Your task to perform on an android device: Open location settings Image 0: 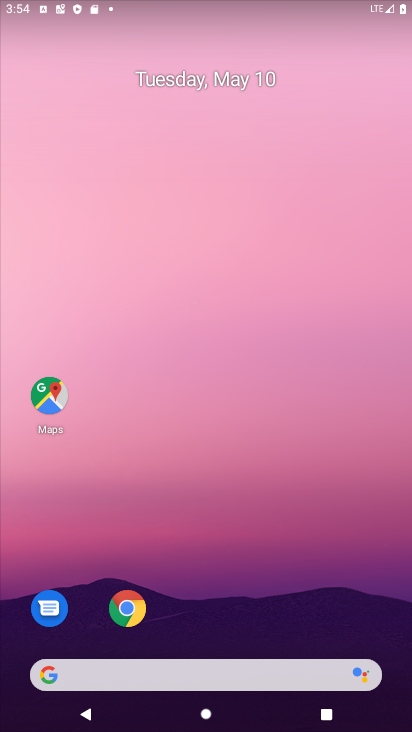
Step 0: drag from (374, 629) to (289, 102)
Your task to perform on an android device: Open location settings Image 1: 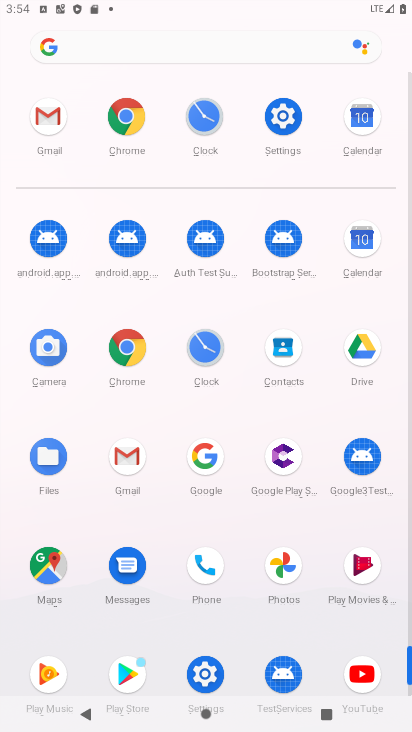
Step 1: click (200, 675)
Your task to perform on an android device: Open location settings Image 2: 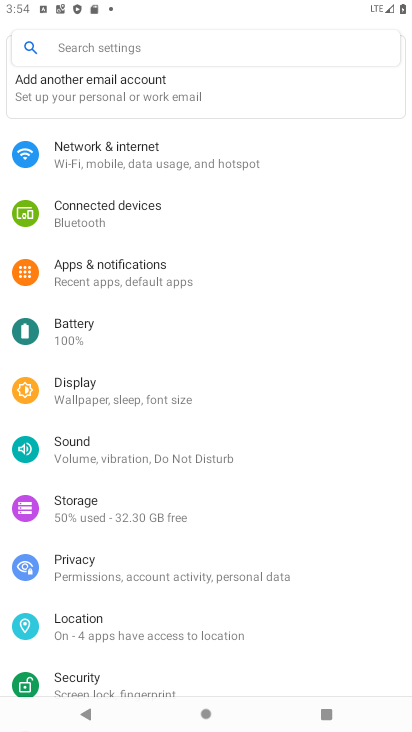
Step 2: click (98, 626)
Your task to perform on an android device: Open location settings Image 3: 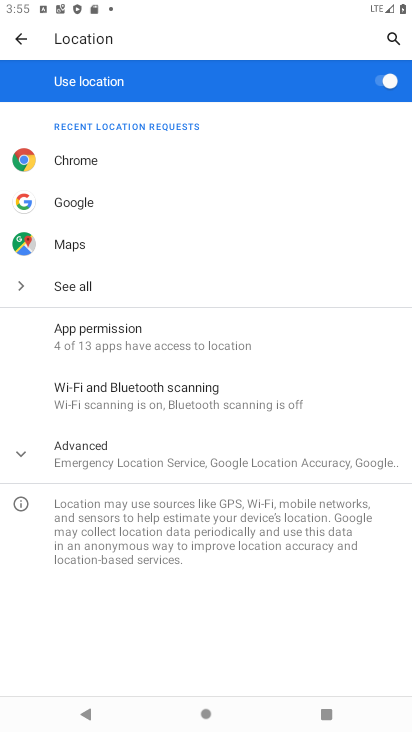
Step 3: click (21, 458)
Your task to perform on an android device: Open location settings Image 4: 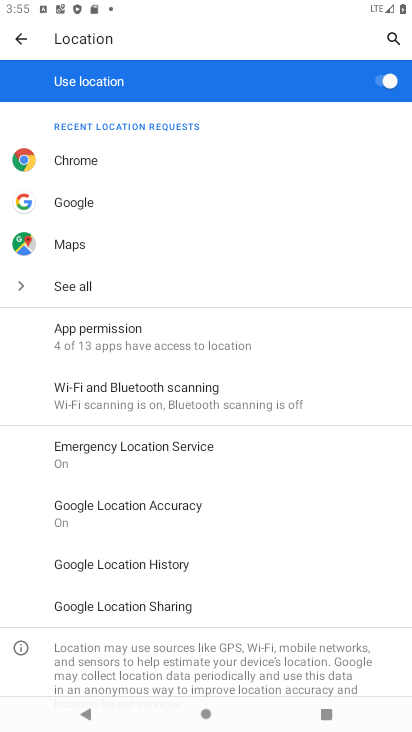
Step 4: task complete